Your task to perform on an android device: Go to display settings Image 0: 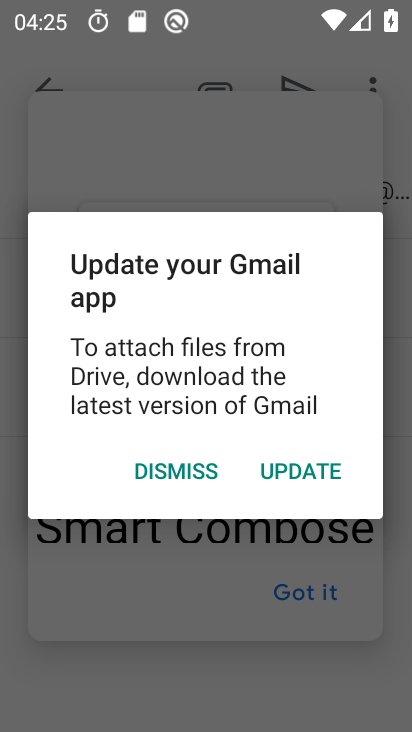
Step 0: press back button
Your task to perform on an android device: Go to display settings Image 1: 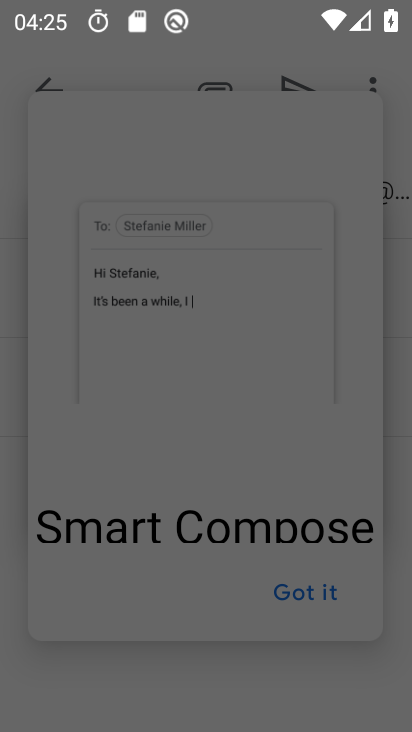
Step 1: press home button
Your task to perform on an android device: Go to display settings Image 2: 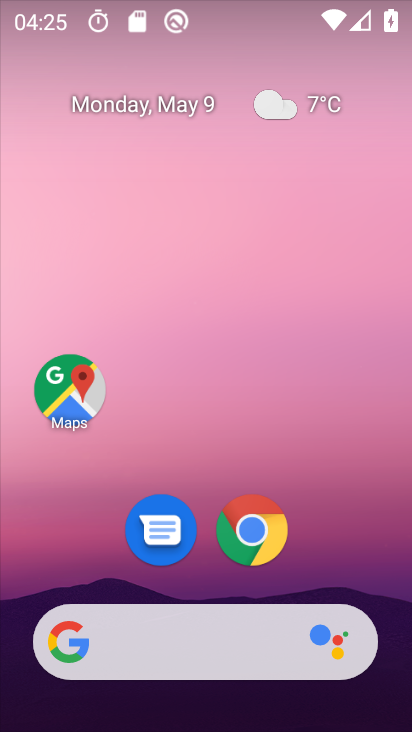
Step 2: click (220, 80)
Your task to perform on an android device: Go to display settings Image 3: 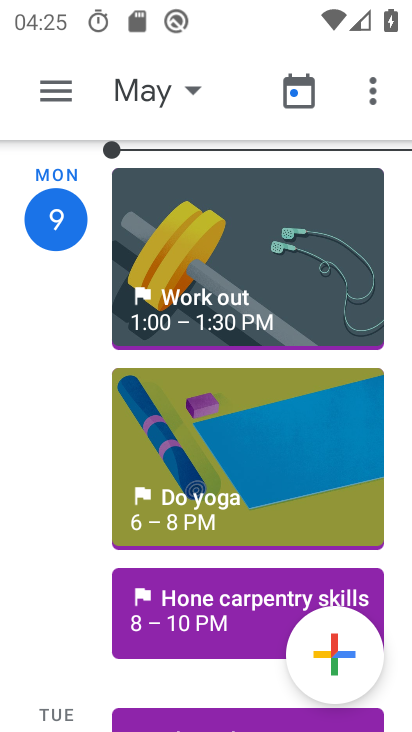
Step 3: press back button
Your task to perform on an android device: Go to display settings Image 4: 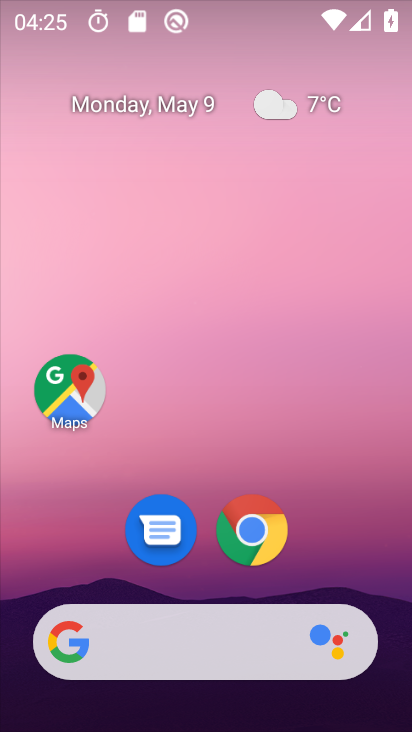
Step 4: drag from (195, 602) to (292, 6)
Your task to perform on an android device: Go to display settings Image 5: 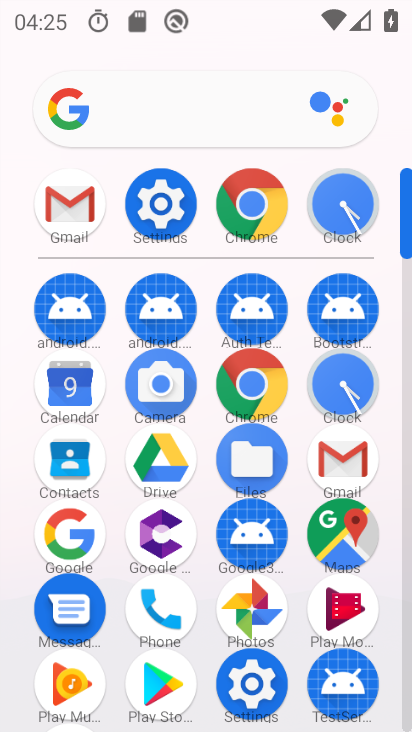
Step 5: click (156, 192)
Your task to perform on an android device: Go to display settings Image 6: 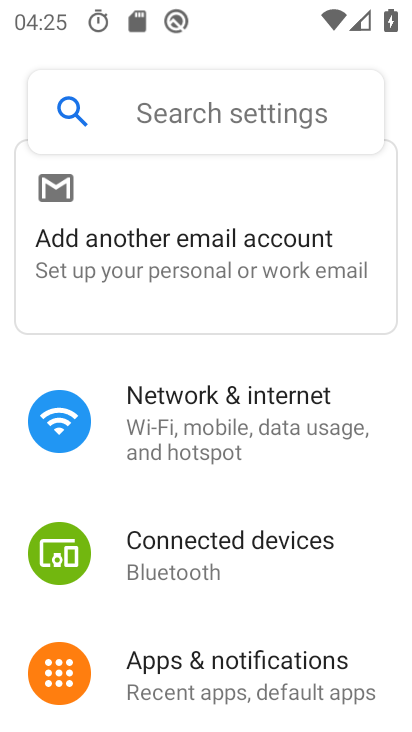
Step 6: drag from (148, 653) to (289, 173)
Your task to perform on an android device: Go to display settings Image 7: 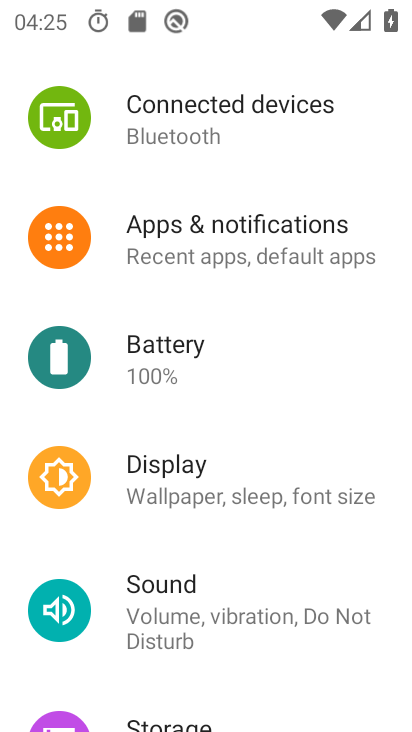
Step 7: click (148, 490)
Your task to perform on an android device: Go to display settings Image 8: 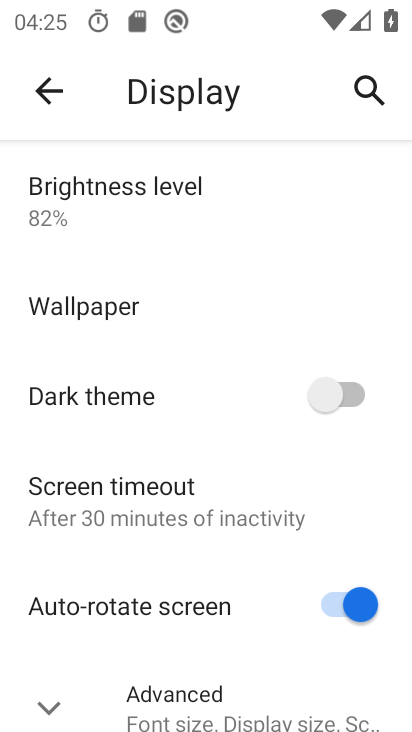
Step 8: task complete